Your task to perform on an android device: toggle show notifications on the lock screen Image 0: 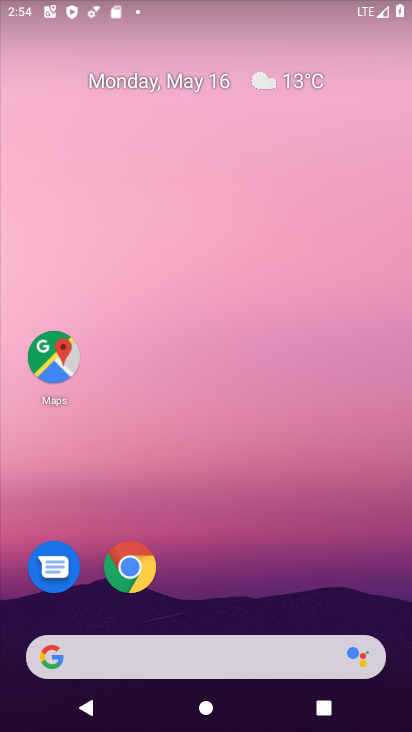
Step 0: drag from (295, 562) to (348, 10)
Your task to perform on an android device: toggle show notifications on the lock screen Image 1: 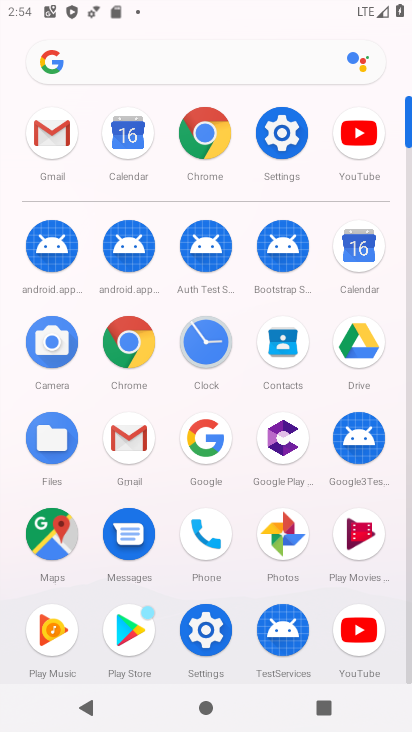
Step 1: click (285, 140)
Your task to perform on an android device: toggle show notifications on the lock screen Image 2: 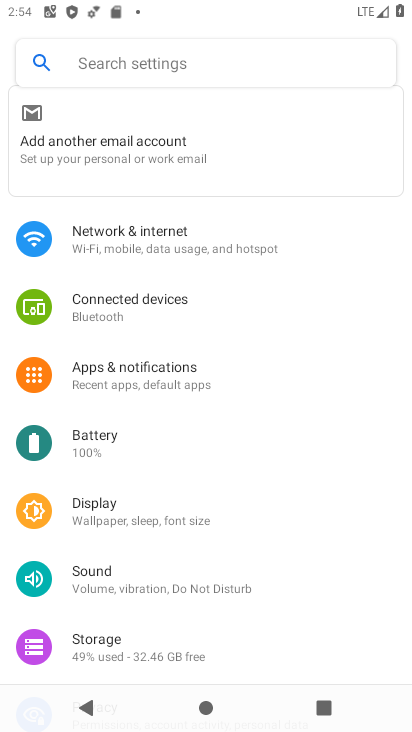
Step 2: drag from (193, 582) to (274, 236)
Your task to perform on an android device: toggle show notifications on the lock screen Image 3: 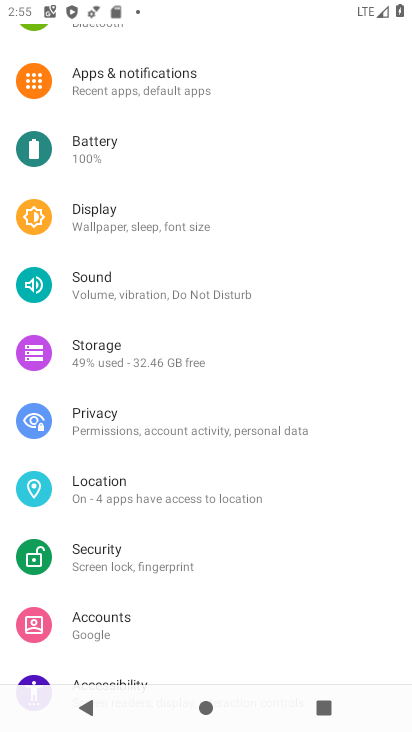
Step 3: click (154, 91)
Your task to perform on an android device: toggle show notifications on the lock screen Image 4: 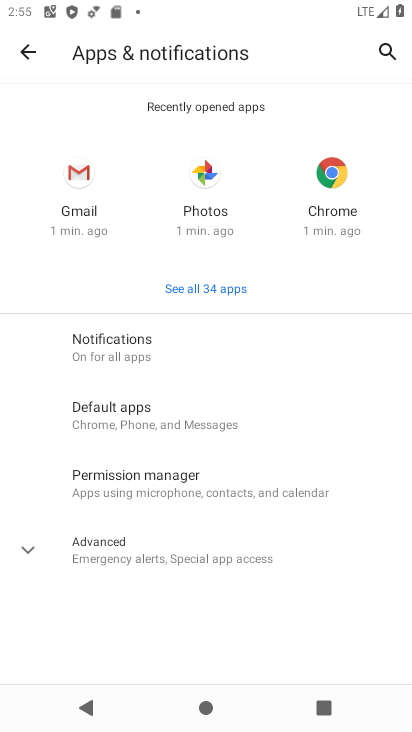
Step 4: click (134, 348)
Your task to perform on an android device: toggle show notifications on the lock screen Image 5: 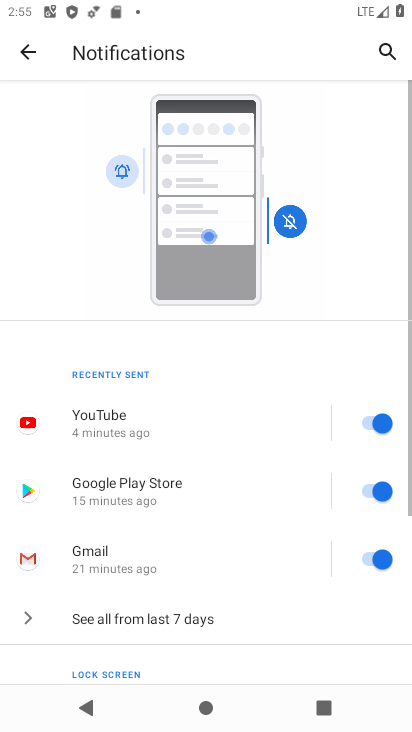
Step 5: drag from (238, 586) to (327, 99)
Your task to perform on an android device: toggle show notifications on the lock screen Image 6: 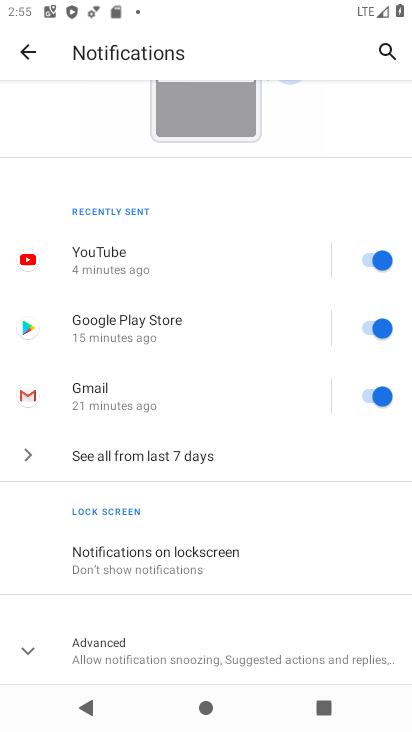
Step 6: drag from (175, 543) to (238, 259)
Your task to perform on an android device: toggle show notifications on the lock screen Image 7: 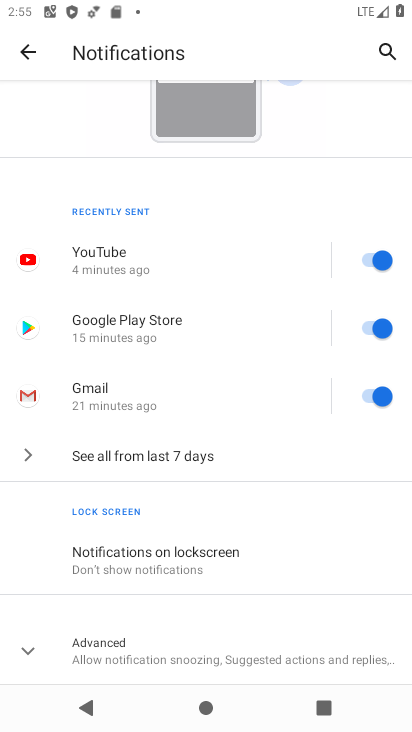
Step 7: click (163, 548)
Your task to perform on an android device: toggle show notifications on the lock screen Image 8: 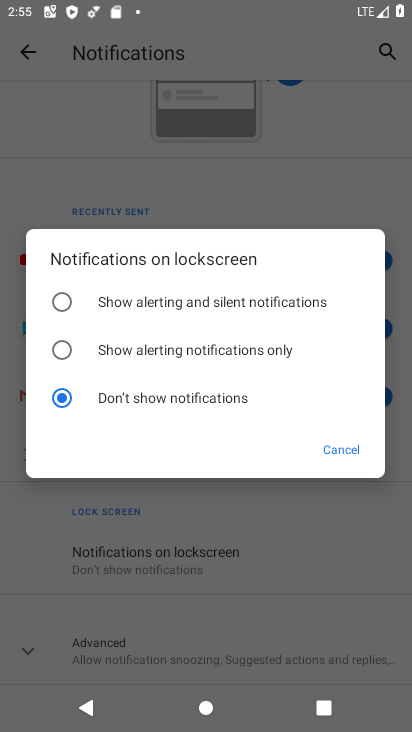
Step 8: click (196, 348)
Your task to perform on an android device: toggle show notifications on the lock screen Image 9: 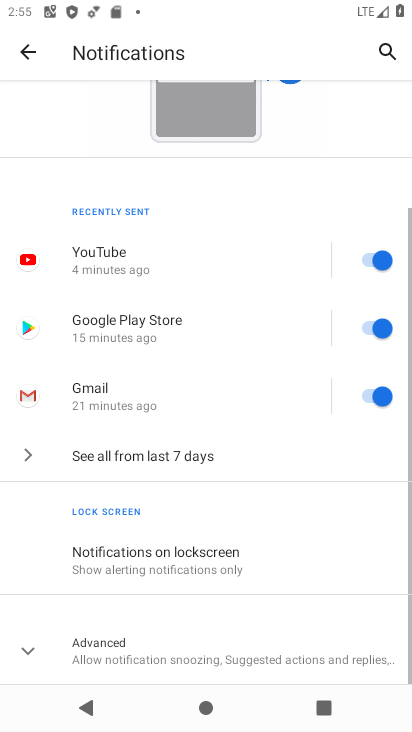
Step 9: task complete